Your task to perform on an android device: Clear the shopping cart on ebay. Search for dell alienware on ebay, select the first entry, and add it to the cart. Image 0: 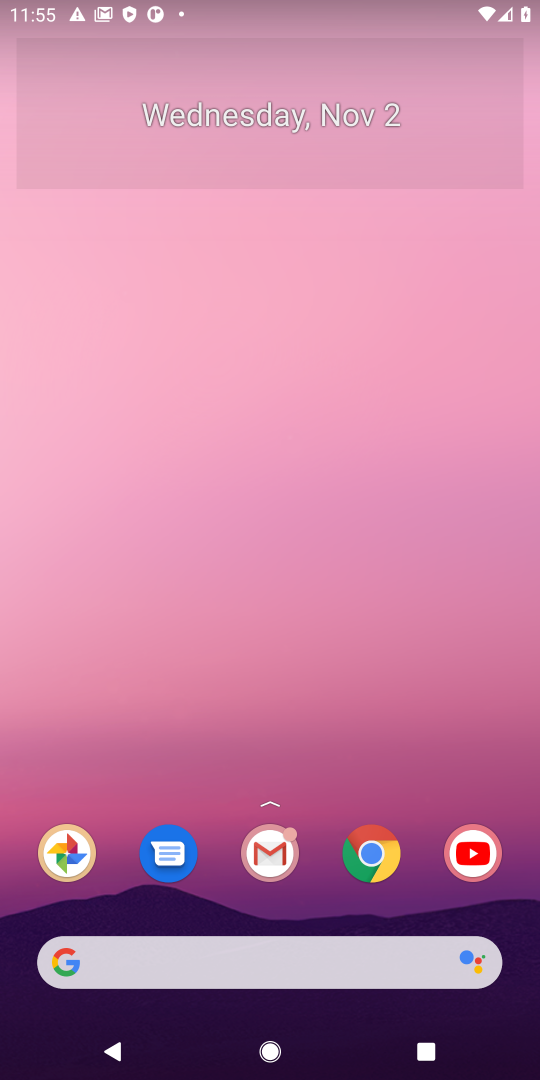
Step 0: click (375, 853)
Your task to perform on an android device: Clear the shopping cart on ebay. Search for dell alienware on ebay, select the first entry, and add it to the cart. Image 1: 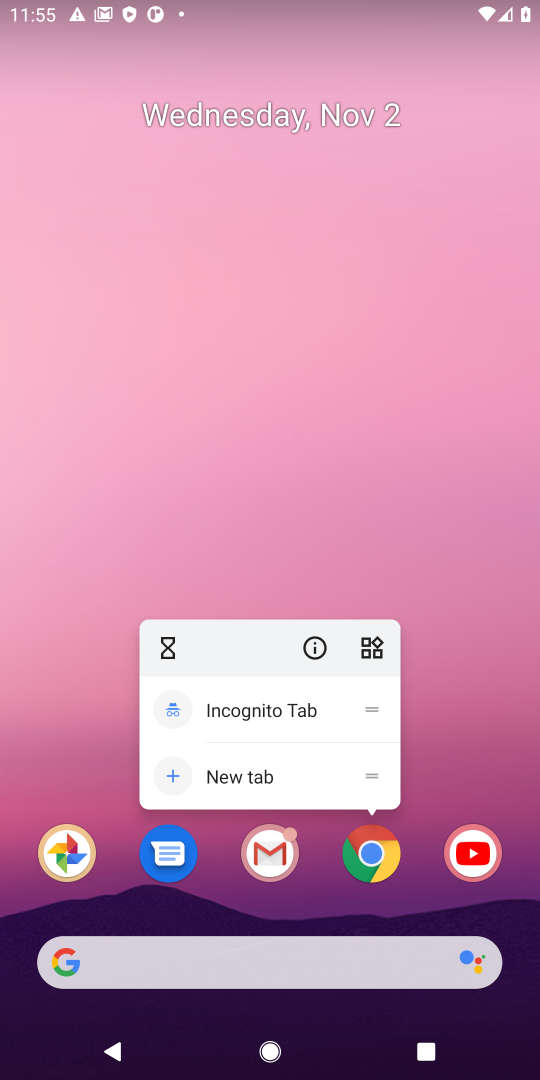
Step 1: click (372, 858)
Your task to perform on an android device: Clear the shopping cart on ebay. Search for dell alienware on ebay, select the first entry, and add it to the cart. Image 2: 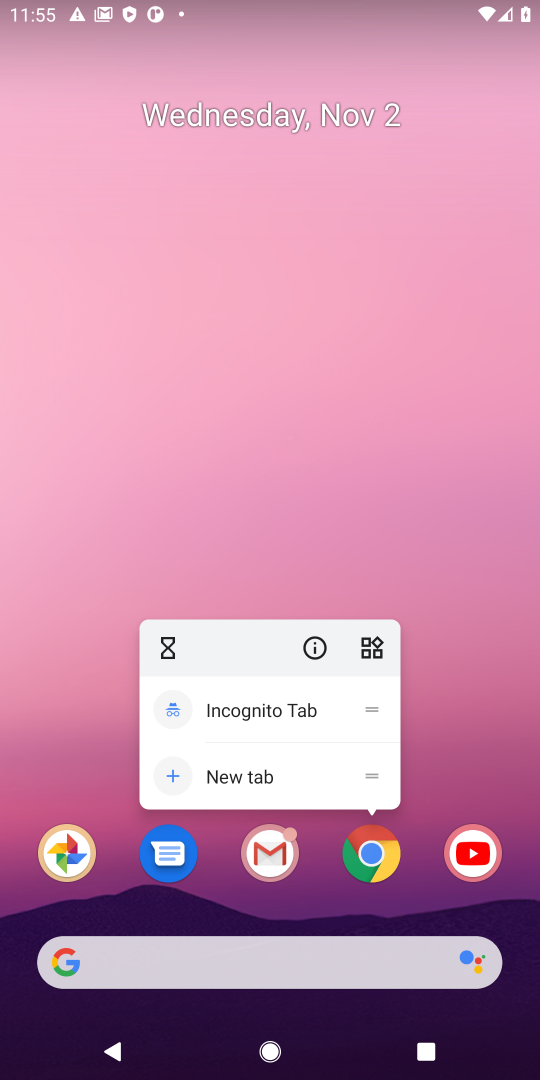
Step 2: click (372, 858)
Your task to perform on an android device: Clear the shopping cart on ebay. Search for dell alienware on ebay, select the first entry, and add it to the cart. Image 3: 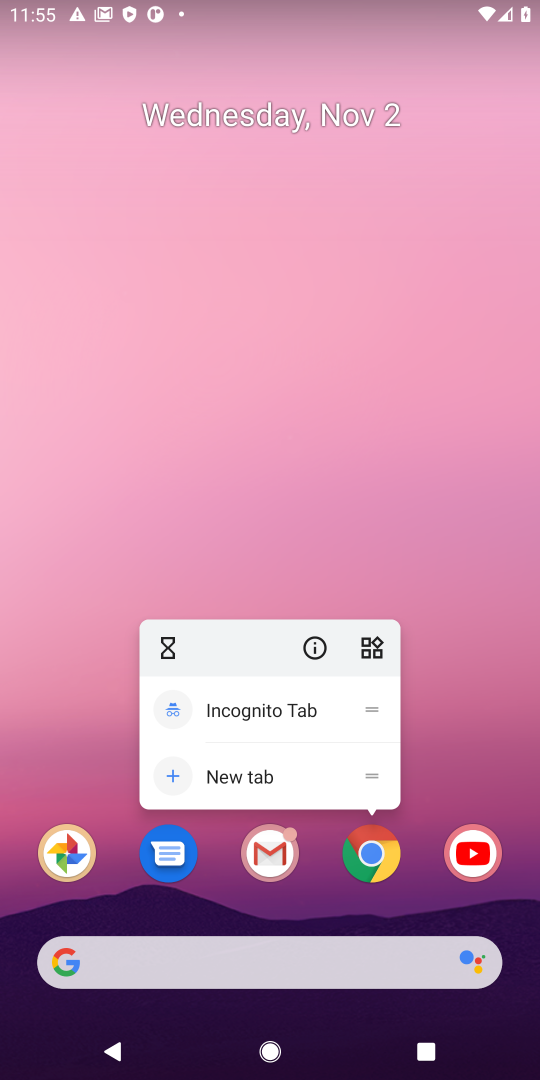
Step 3: click (373, 847)
Your task to perform on an android device: Clear the shopping cart on ebay. Search for dell alienware on ebay, select the first entry, and add it to the cart. Image 4: 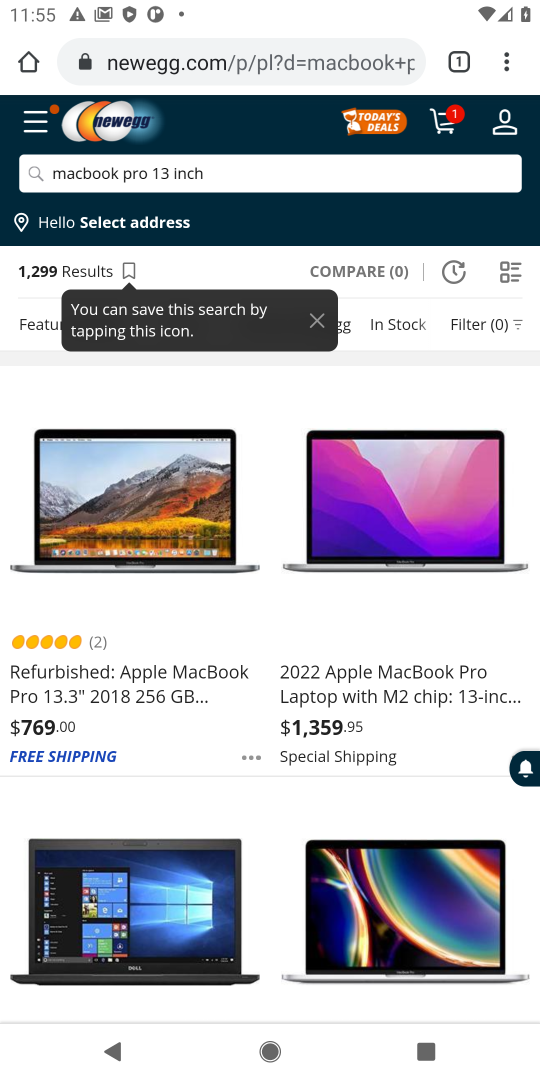
Step 4: click (279, 70)
Your task to perform on an android device: Clear the shopping cart on ebay. Search for dell alienware on ebay, select the first entry, and add it to the cart. Image 5: 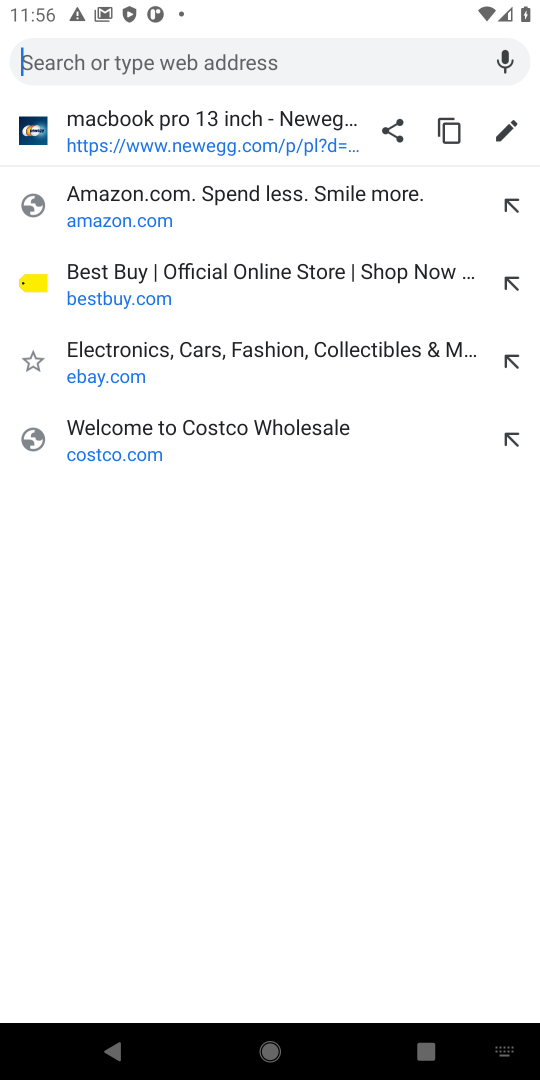
Step 5: type "ebay"
Your task to perform on an android device: Clear the shopping cart on ebay. Search for dell alienware on ebay, select the first entry, and add it to the cart. Image 6: 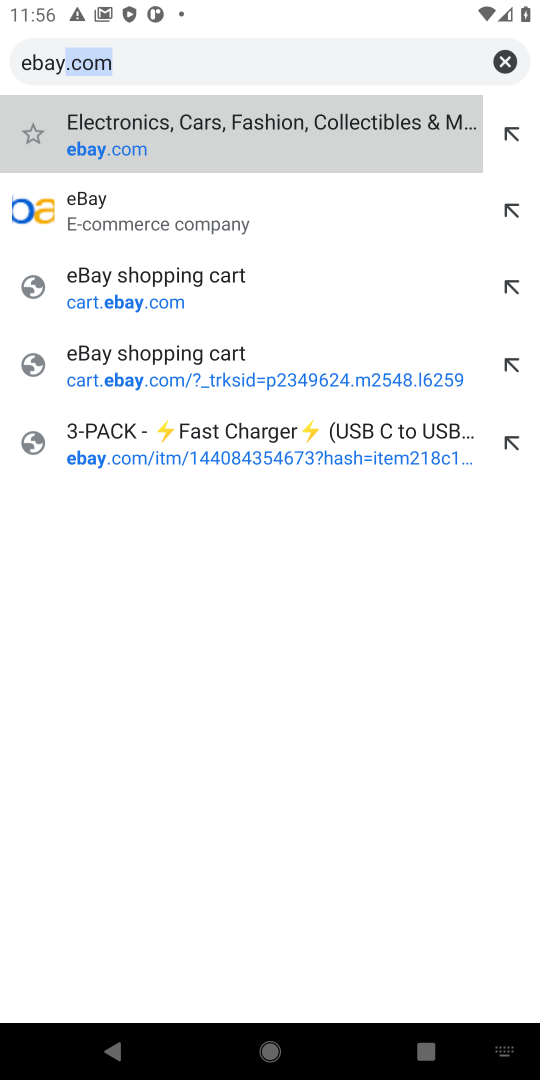
Step 6: press enter
Your task to perform on an android device: Clear the shopping cart on ebay. Search for dell alienware on ebay, select the first entry, and add it to the cart. Image 7: 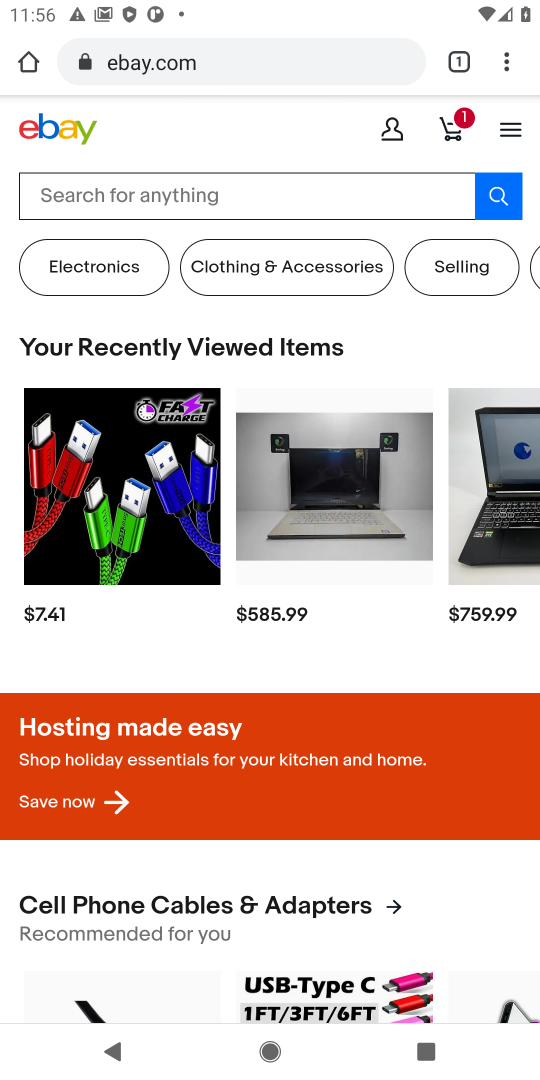
Step 7: click (128, 195)
Your task to perform on an android device: Clear the shopping cart on ebay. Search for dell alienware on ebay, select the first entry, and add it to the cart. Image 8: 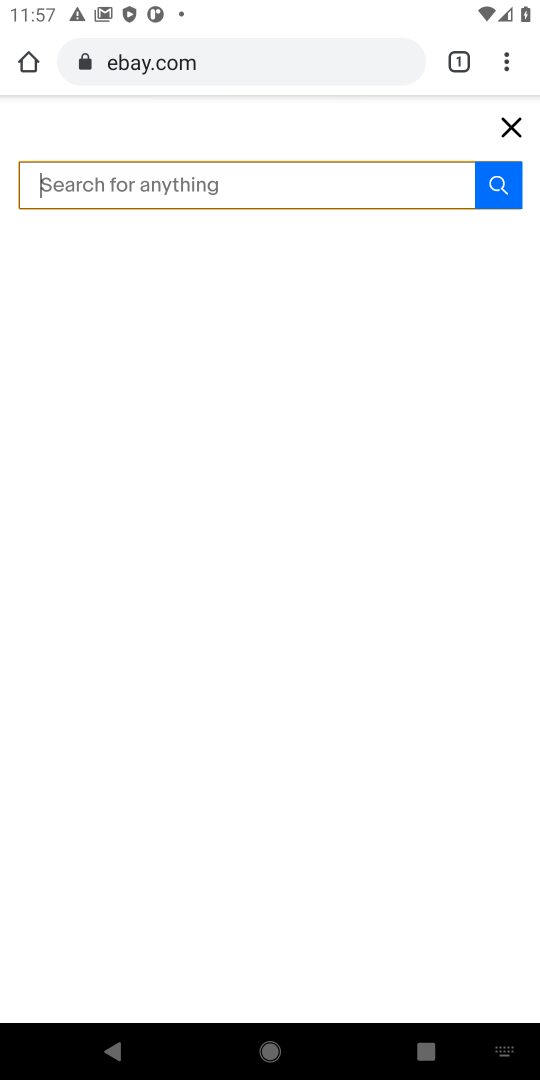
Step 8: type "dell alienware "
Your task to perform on an android device: Clear the shopping cart on ebay. Search for dell alienware on ebay, select the first entry, and add it to the cart. Image 9: 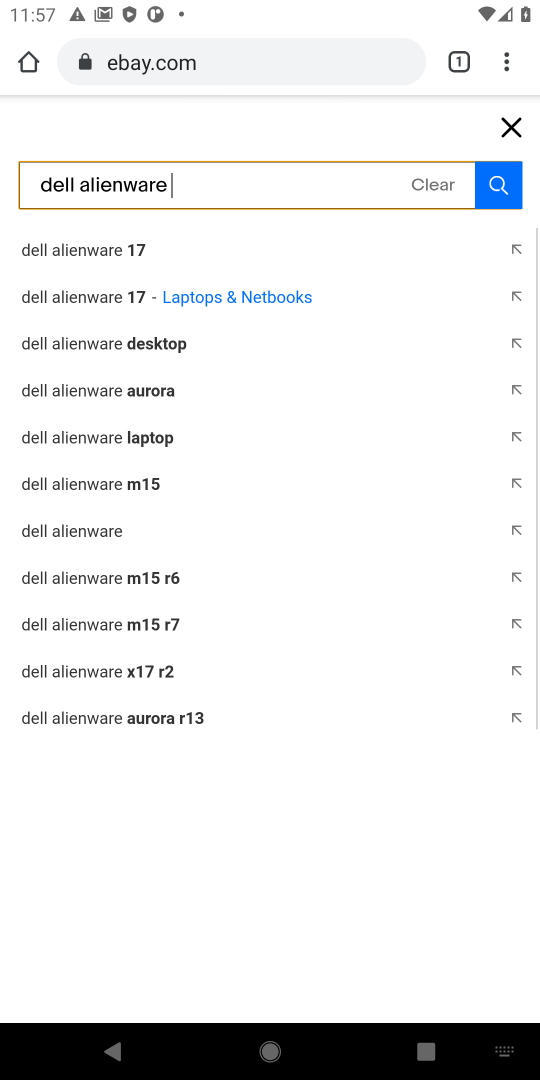
Step 9: press enter
Your task to perform on an android device: Clear the shopping cart on ebay. Search for dell alienware on ebay, select the first entry, and add it to the cart. Image 10: 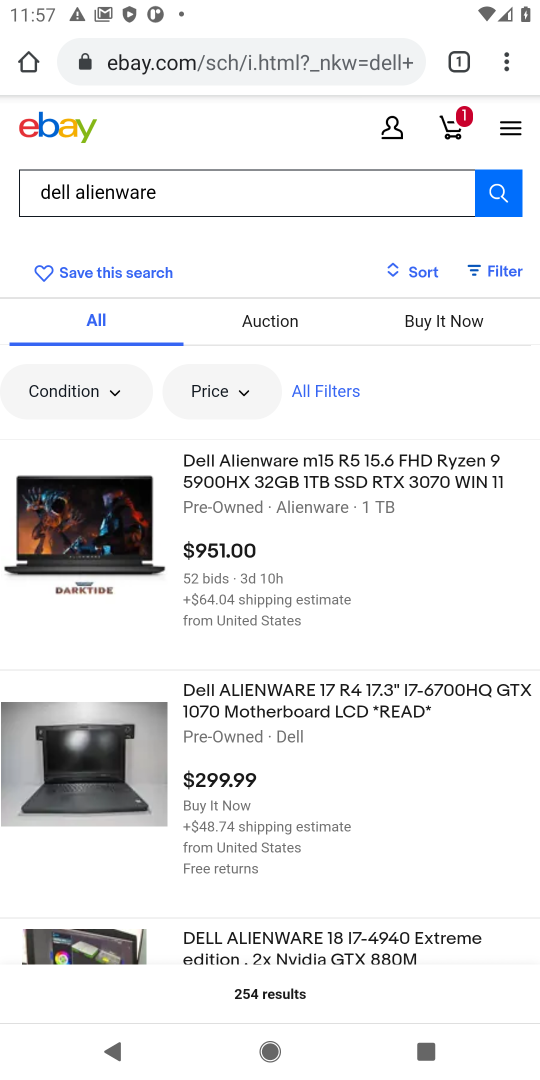
Step 10: click (279, 503)
Your task to perform on an android device: Clear the shopping cart on ebay. Search for dell alienware on ebay, select the first entry, and add it to the cart. Image 11: 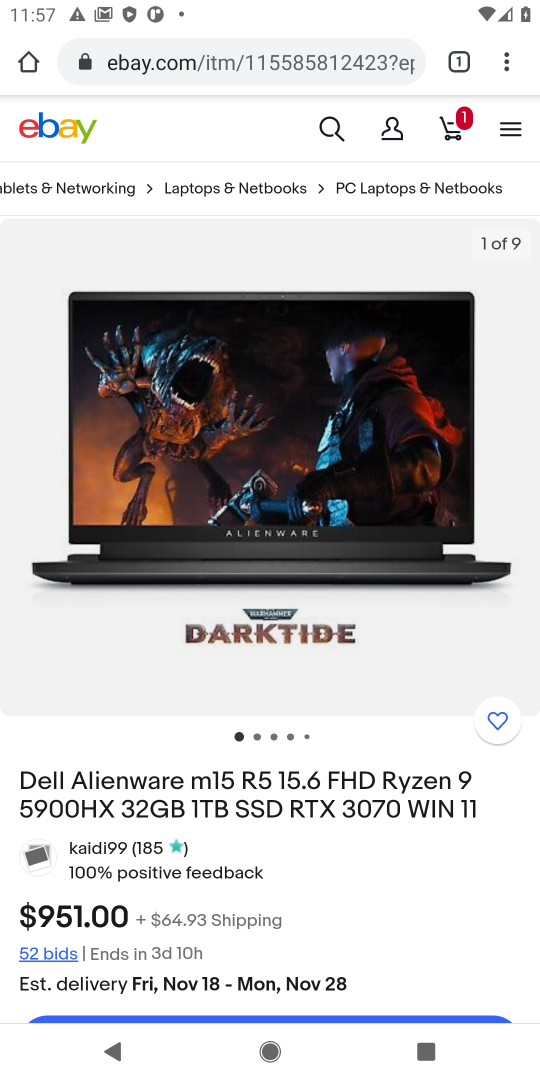
Step 11: drag from (323, 865) to (429, 489)
Your task to perform on an android device: Clear the shopping cart on ebay. Search for dell alienware on ebay, select the first entry, and add it to the cart. Image 12: 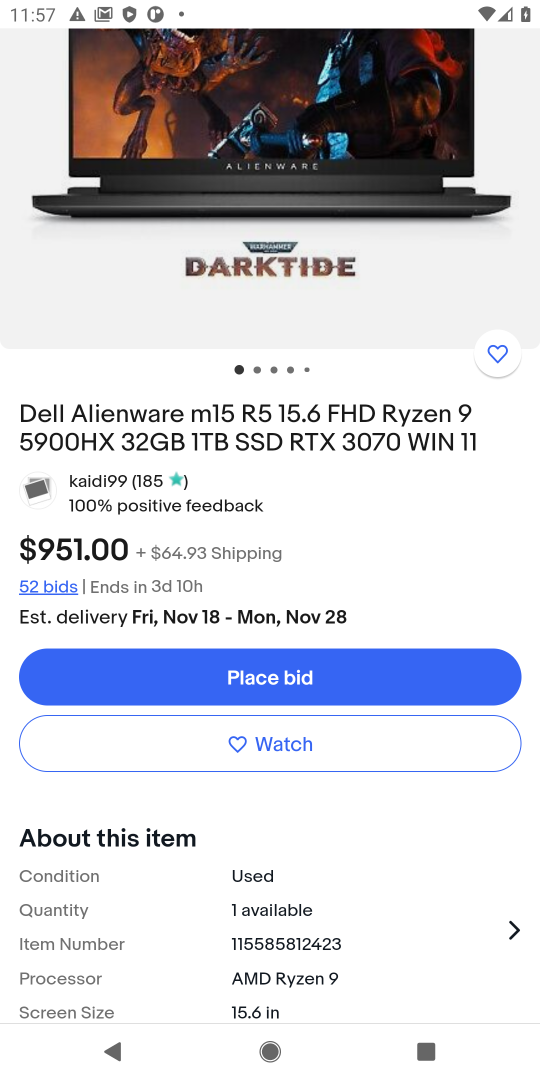
Step 12: click (278, 671)
Your task to perform on an android device: Clear the shopping cart on ebay. Search for dell alienware on ebay, select the first entry, and add it to the cart. Image 13: 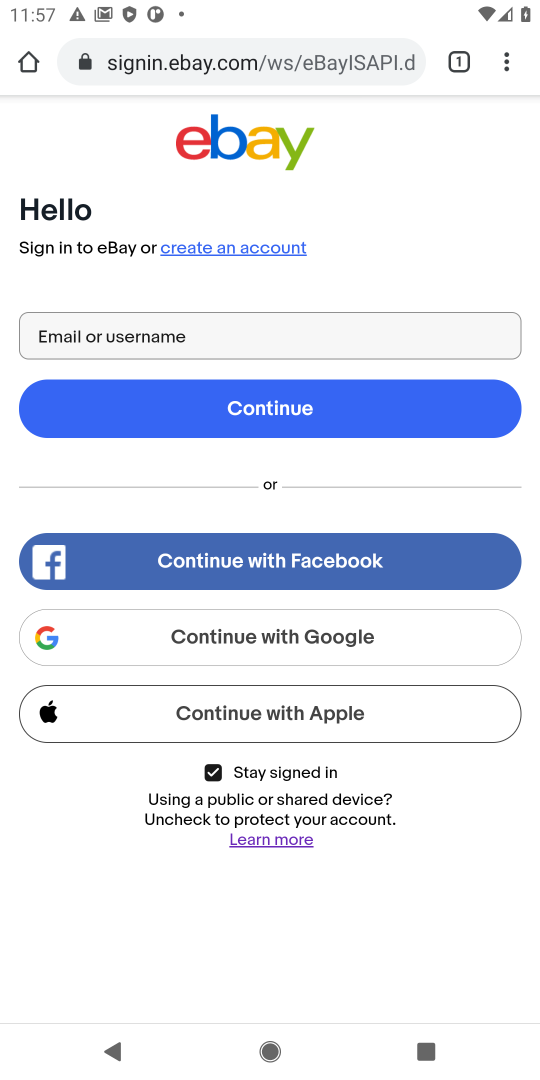
Step 13: task complete